Your task to perform on an android device: open app "Adobe Express: Graphic Design" (install if not already installed) Image 0: 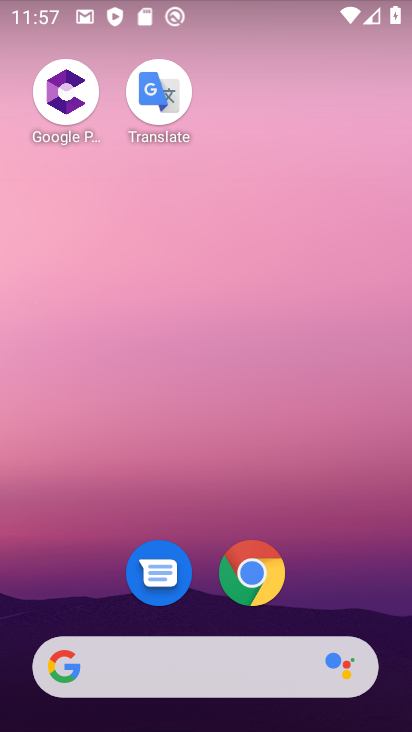
Step 0: drag from (263, 631) to (288, 103)
Your task to perform on an android device: open app "Adobe Express: Graphic Design" (install if not already installed) Image 1: 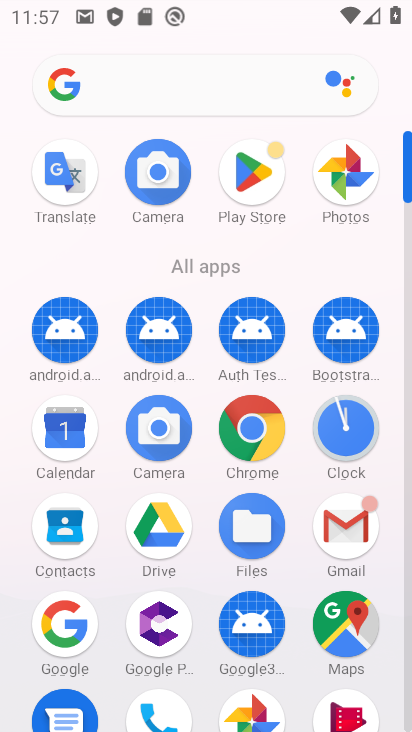
Step 1: click (264, 158)
Your task to perform on an android device: open app "Adobe Express: Graphic Design" (install if not already installed) Image 2: 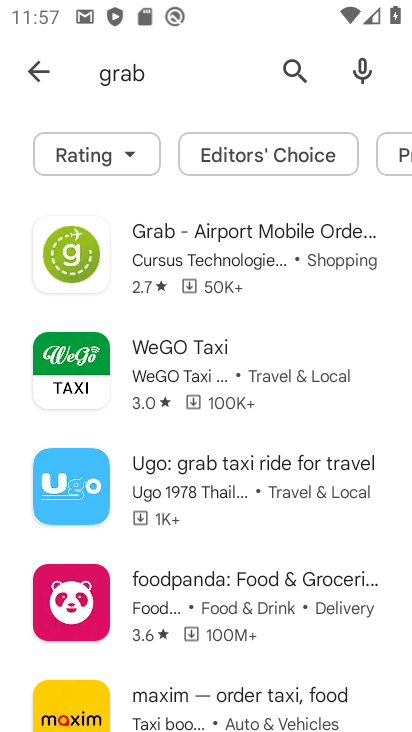
Step 2: click (290, 66)
Your task to perform on an android device: open app "Adobe Express: Graphic Design" (install if not already installed) Image 3: 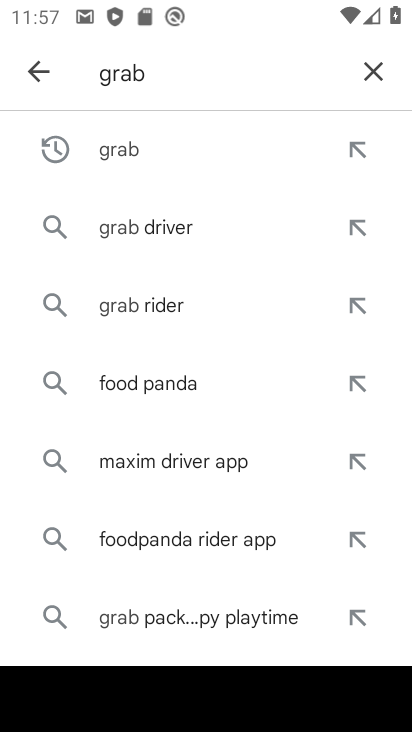
Step 3: click (363, 67)
Your task to perform on an android device: open app "Adobe Express: Graphic Design" (install if not already installed) Image 4: 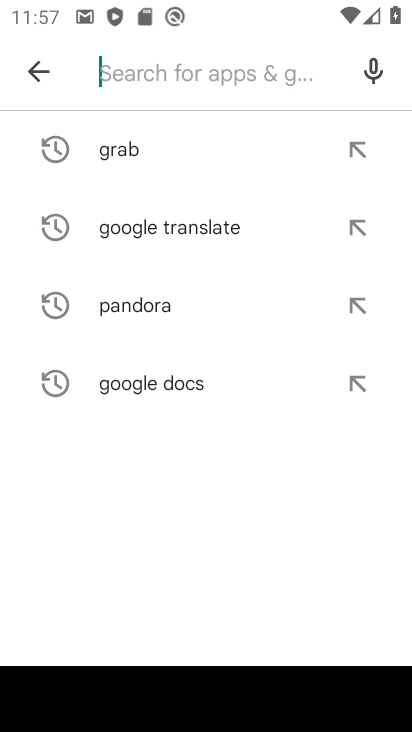
Step 4: type "adobe express: graphic design"
Your task to perform on an android device: open app "Adobe Express: Graphic Design" (install if not already installed) Image 5: 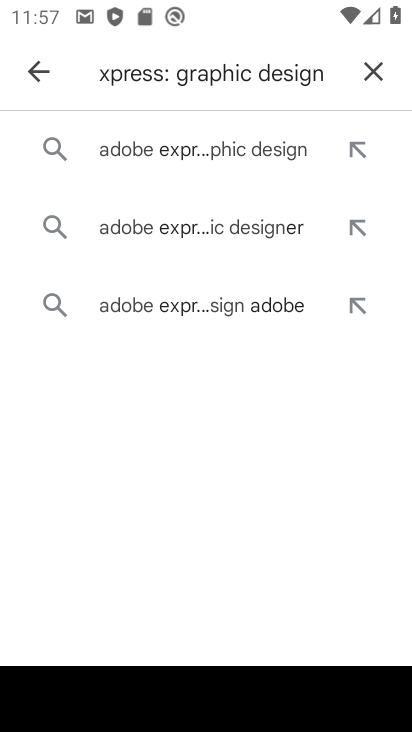
Step 5: click (251, 145)
Your task to perform on an android device: open app "Adobe Express: Graphic Design" (install if not already installed) Image 6: 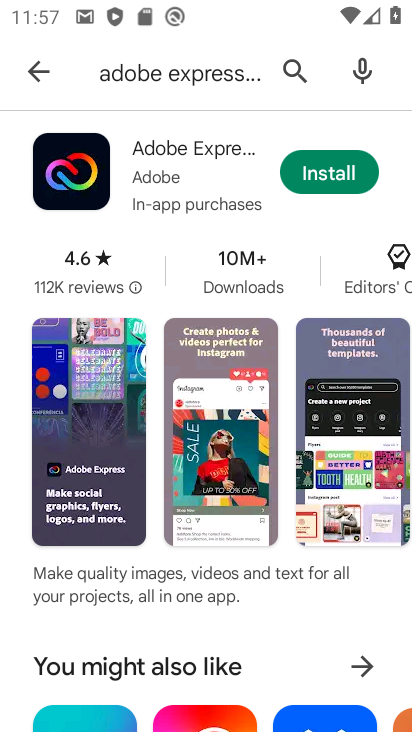
Step 6: click (322, 160)
Your task to perform on an android device: open app "Adobe Express: Graphic Design" (install if not already installed) Image 7: 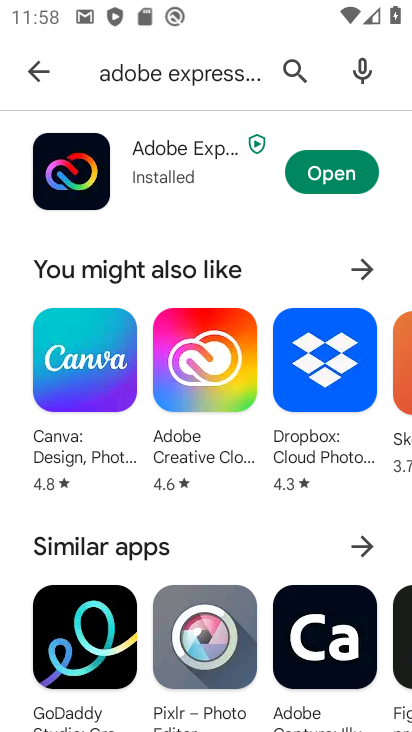
Step 7: click (353, 170)
Your task to perform on an android device: open app "Adobe Express: Graphic Design" (install if not already installed) Image 8: 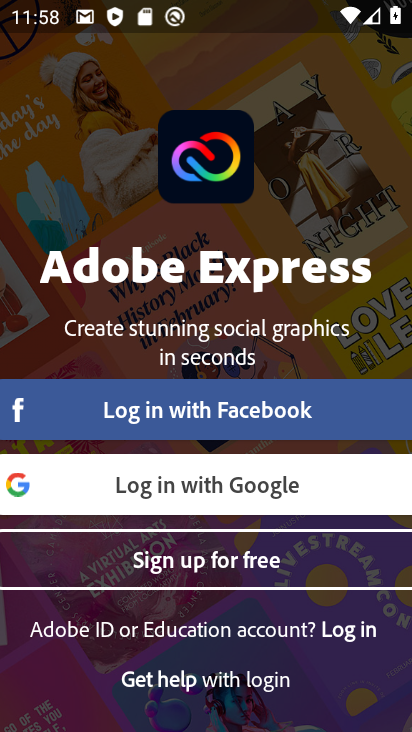
Step 8: task complete